Your task to perform on an android device: Search for Mexican restaurants on Maps Image 0: 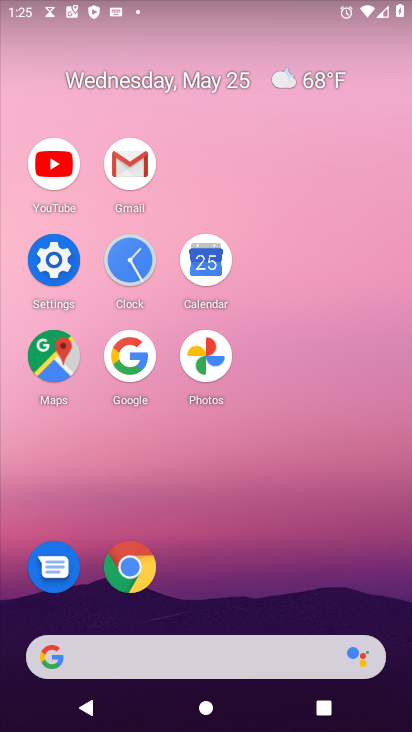
Step 0: click (54, 359)
Your task to perform on an android device: Search for Mexican restaurants on Maps Image 1: 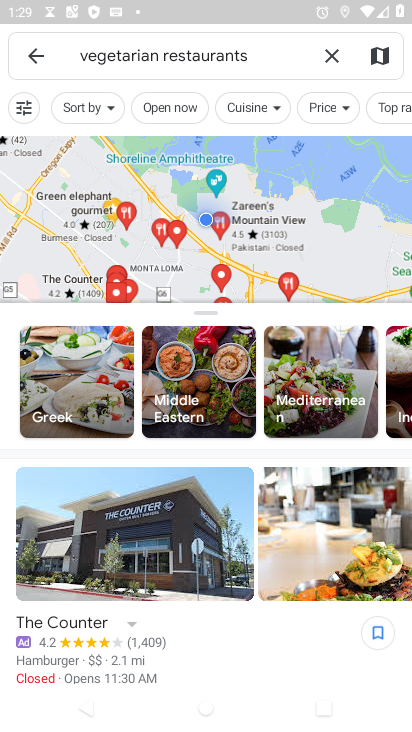
Step 1: click (338, 58)
Your task to perform on an android device: Search for Mexican restaurants on Maps Image 2: 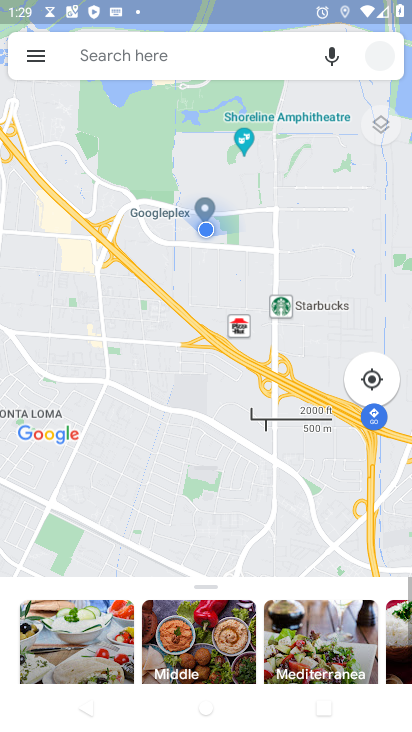
Step 2: click (267, 53)
Your task to perform on an android device: Search for Mexican restaurants on Maps Image 3: 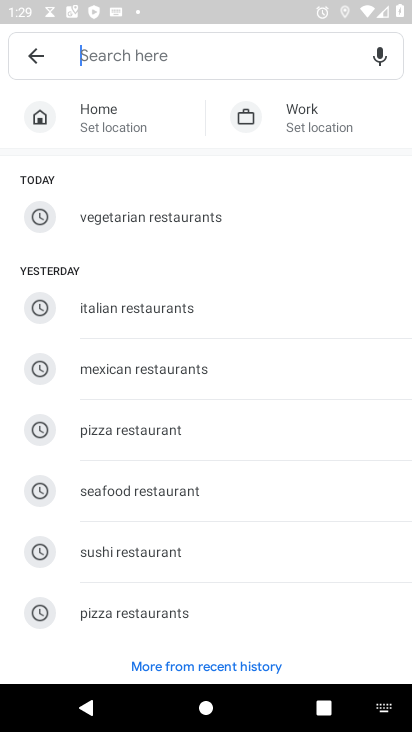
Step 3: click (149, 372)
Your task to perform on an android device: Search for Mexican restaurants on Maps Image 4: 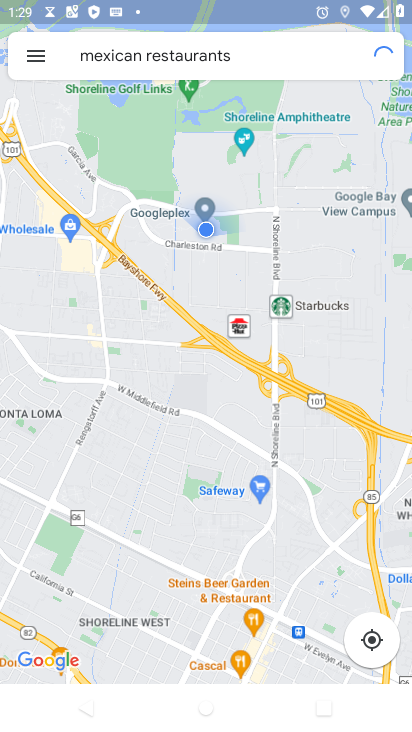
Step 4: task complete